Your task to perform on an android device: Open calendar and show me the third week of next month Image 0: 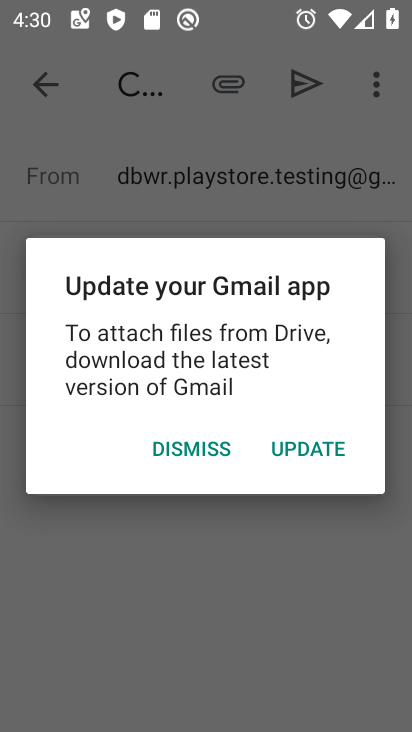
Step 0: task impossible